Your task to perform on an android device: Open network settings Image 0: 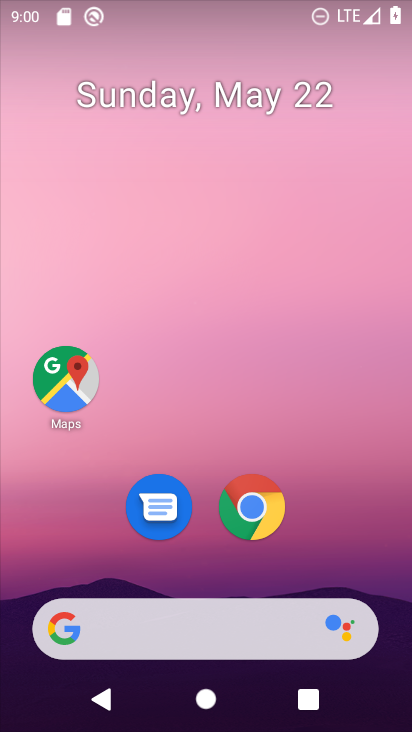
Step 0: drag from (247, 537) to (398, 337)
Your task to perform on an android device: Open network settings Image 1: 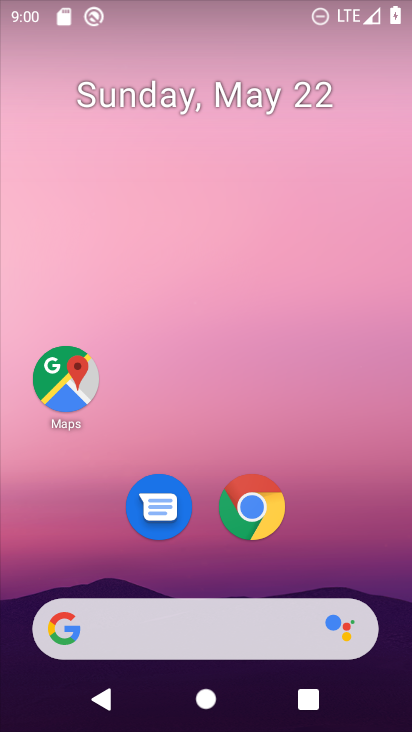
Step 1: drag from (269, 678) to (284, 0)
Your task to perform on an android device: Open network settings Image 2: 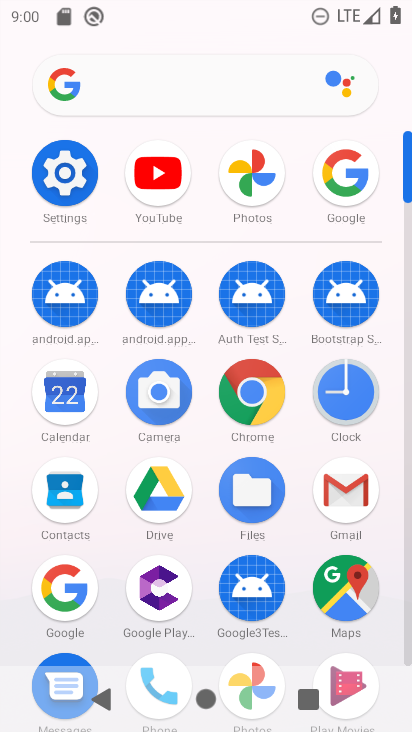
Step 2: click (68, 186)
Your task to perform on an android device: Open network settings Image 3: 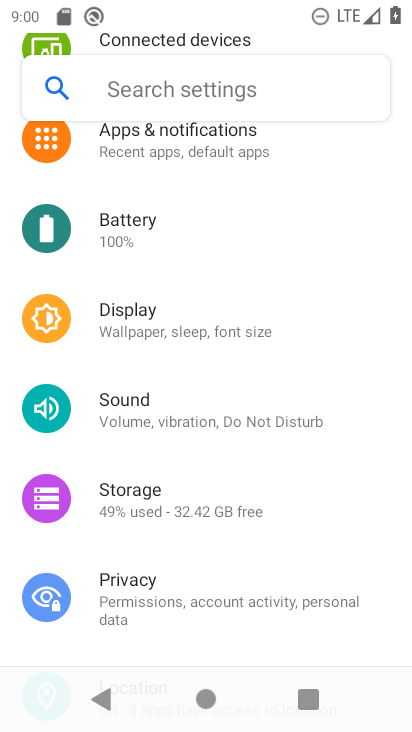
Step 3: drag from (294, 310) to (283, 726)
Your task to perform on an android device: Open network settings Image 4: 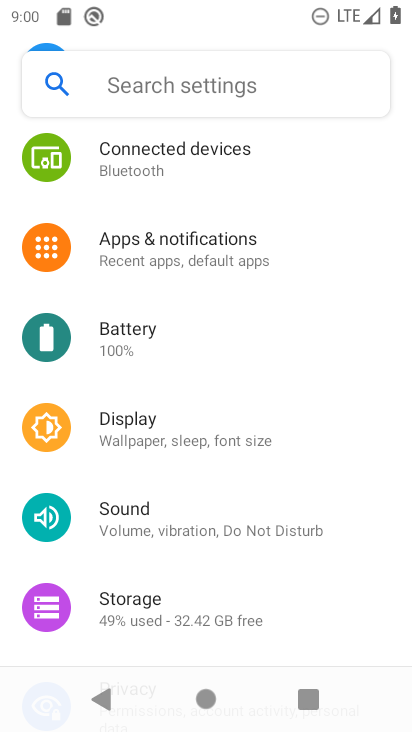
Step 4: drag from (321, 302) to (332, 731)
Your task to perform on an android device: Open network settings Image 5: 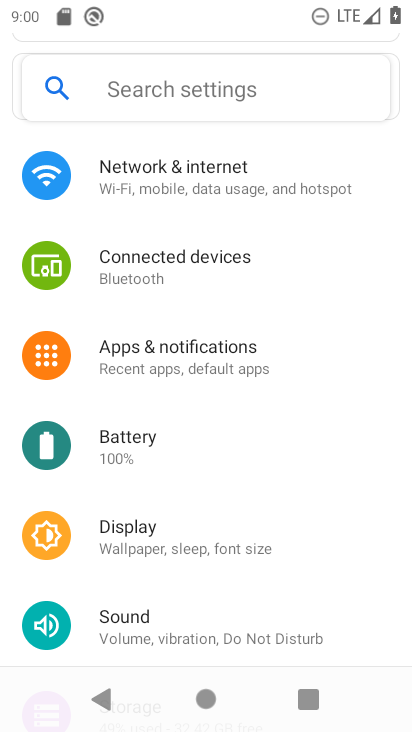
Step 5: click (308, 182)
Your task to perform on an android device: Open network settings Image 6: 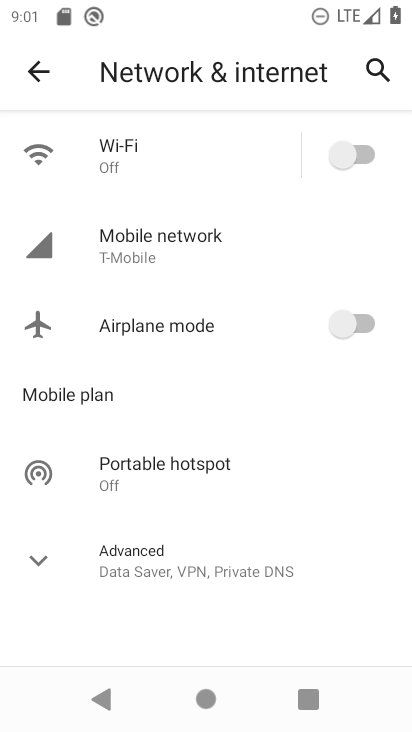
Step 6: task complete